Your task to perform on an android device: turn on the 12-hour format for clock Image 0: 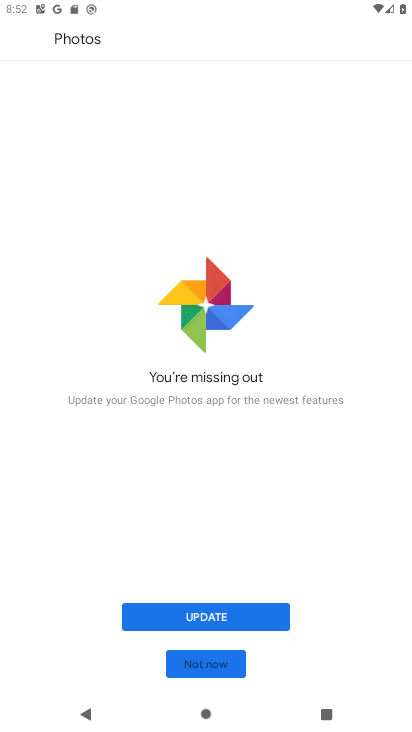
Step 0: press home button
Your task to perform on an android device: turn on the 12-hour format for clock Image 1: 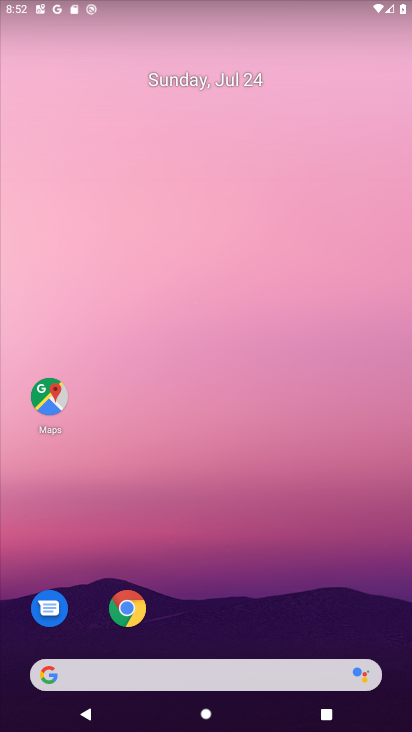
Step 1: drag from (193, 589) to (272, 0)
Your task to perform on an android device: turn on the 12-hour format for clock Image 2: 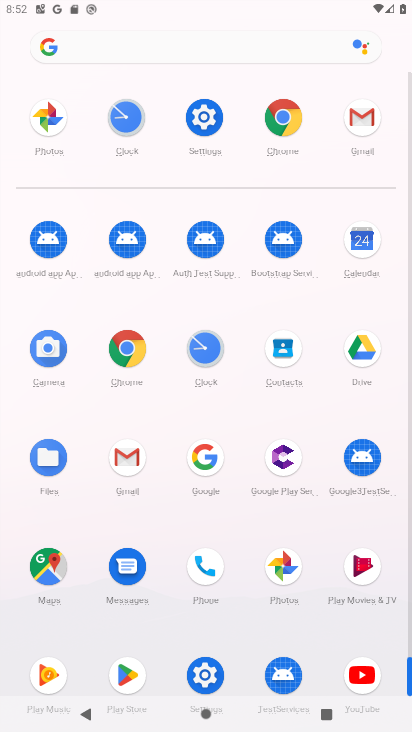
Step 2: click (201, 376)
Your task to perform on an android device: turn on the 12-hour format for clock Image 3: 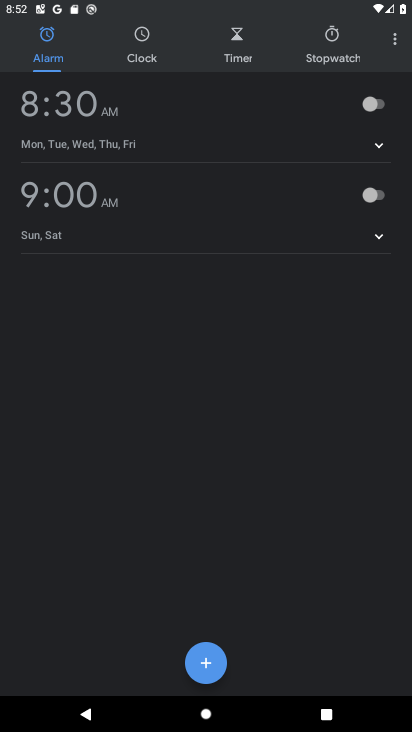
Step 3: click (391, 49)
Your task to perform on an android device: turn on the 12-hour format for clock Image 4: 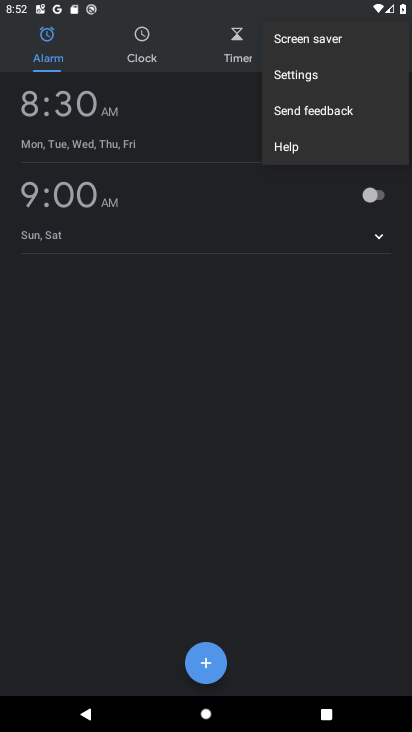
Step 4: click (338, 66)
Your task to perform on an android device: turn on the 12-hour format for clock Image 5: 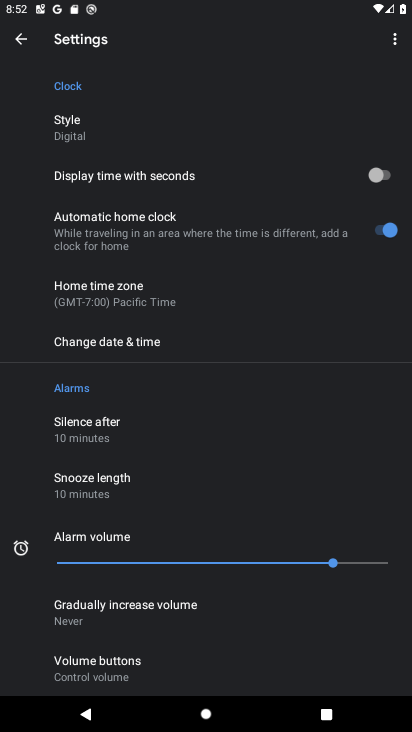
Step 5: task complete